Your task to perform on an android device: Turn off the flashlight Image 0: 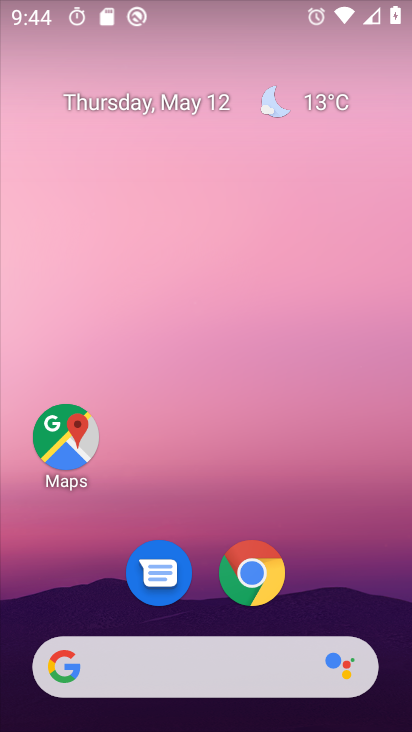
Step 0: drag from (400, 673) to (362, 312)
Your task to perform on an android device: Turn off the flashlight Image 1: 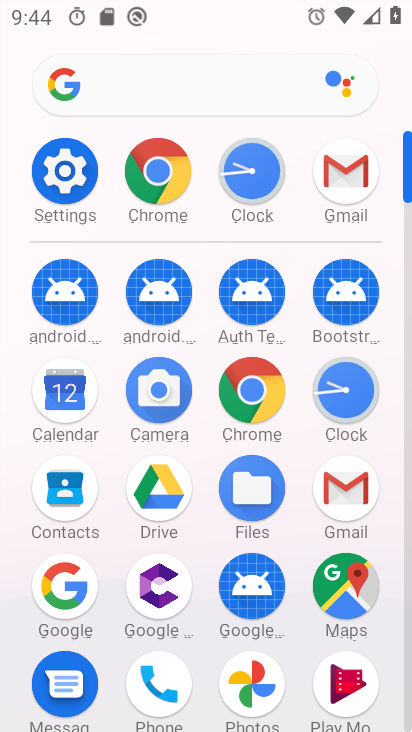
Step 1: click (81, 178)
Your task to perform on an android device: Turn off the flashlight Image 2: 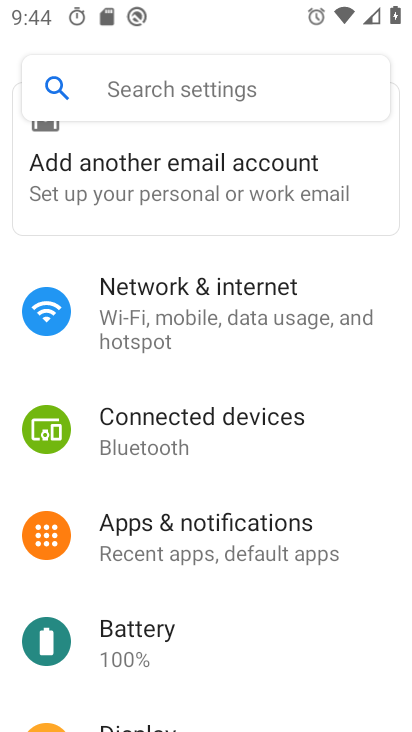
Step 2: click (180, 326)
Your task to perform on an android device: Turn off the flashlight Image 3: 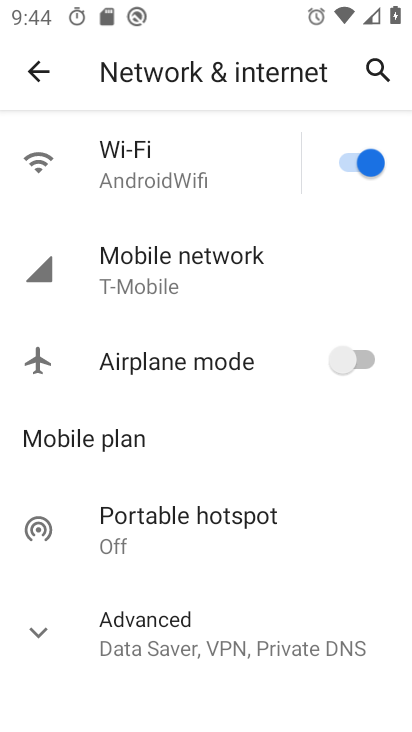
Step 3: task complete